Your task to perform on an android device: change notifications settings Image 0: 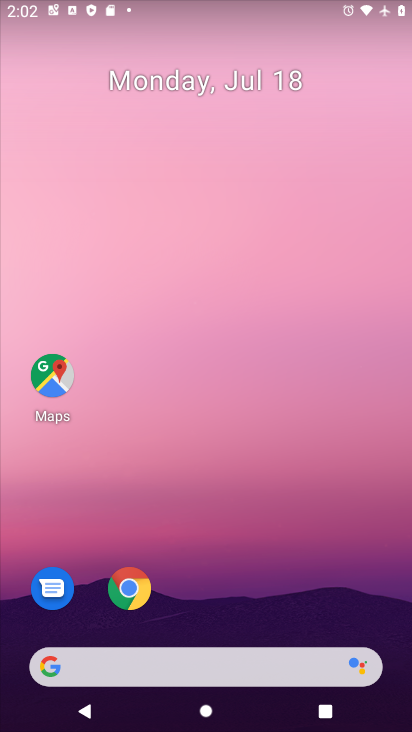
Step 0: drag from (238, 622) to (307, 126)
Your task to perform on an android device: change notifications settings Image 1: 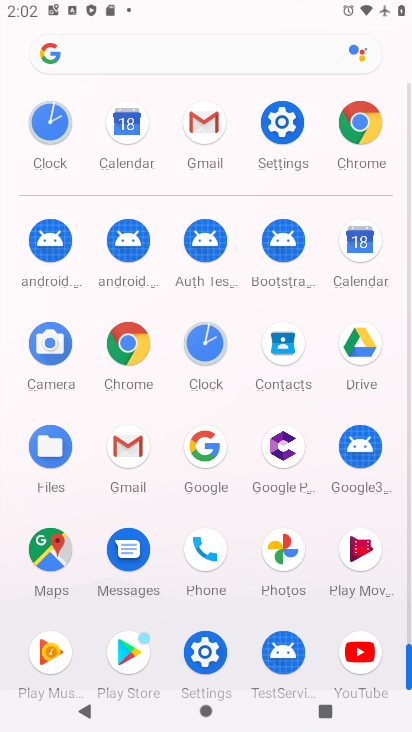
Step 1: click (300, 134)
Your task to perform on an android device: change notifications settings Image 2: 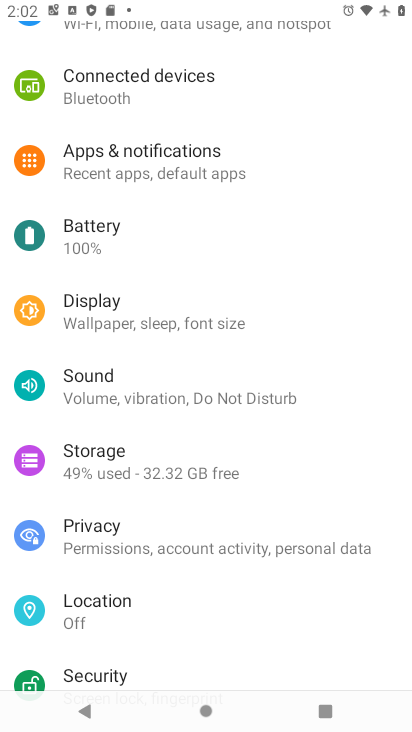
Step 2: click (220, 168)
Your task to perform on an android device: change notifications settings Image 3: 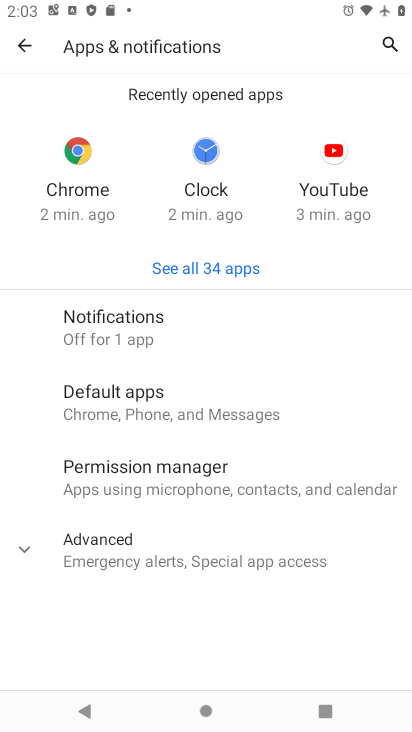
Step 3: click (177, 321)
Your task to perform on an android device: change notifications settings Image 4: 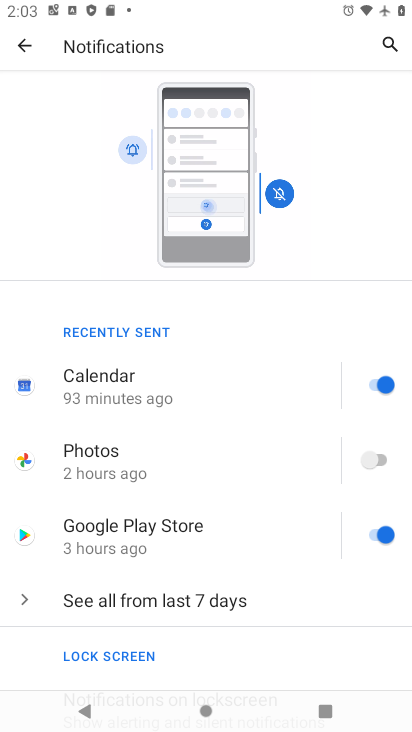
Step 4: click (177, 321)
Your task to perform on an android device: change notifications settings Image 5: 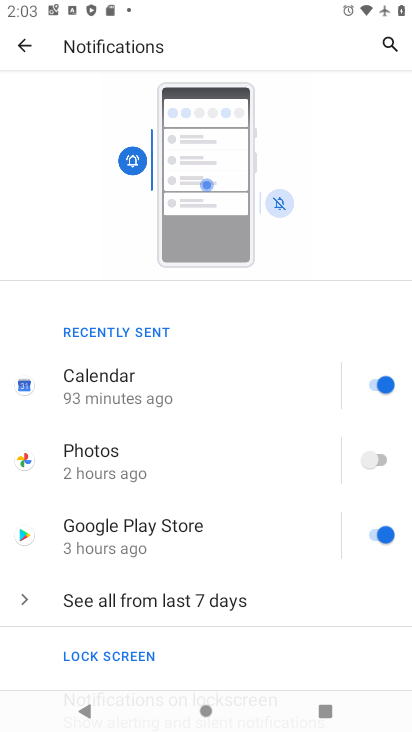
Step 5: click (366, 387)
Your task to perform on an android device: change notifications settings Image 6: 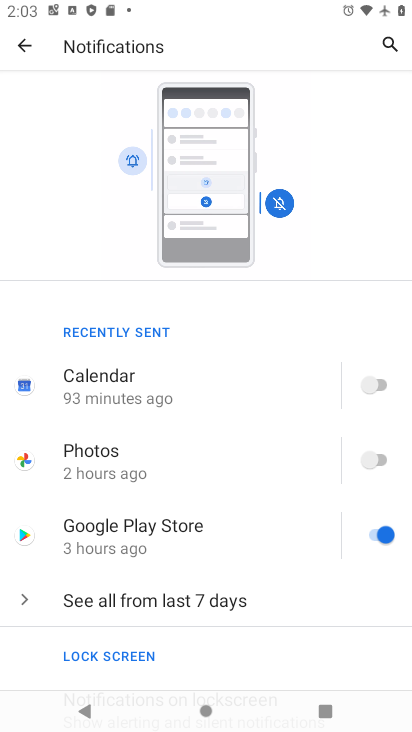
Step 6: task complete